Your task to perform on an android device: toggle translation in the chrome app Image 0: 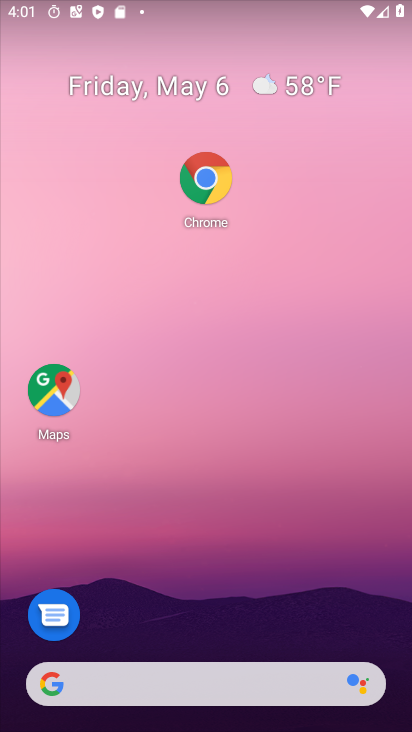
Step 0: drag from (397, 529) to (259, 46)
Your task to perform on an android device: toggle translation in the chrome app Image 1: 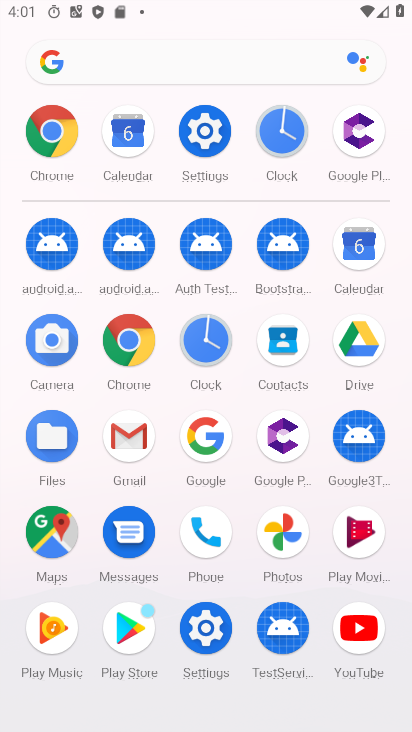
Step 1: click (54, 144)
Your task to perform on an android device: toggle translation in the chrome app Image 2: 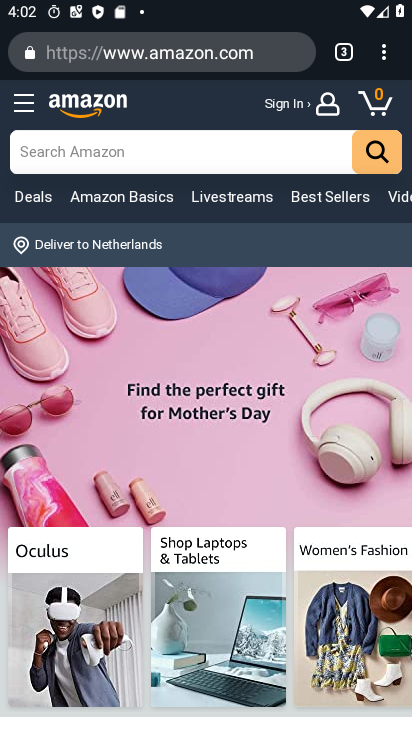
Step 2: drag from (386, 50) to (191, 630)
Your task to perform on an android device: toggle translation in the chrome app Image 3: 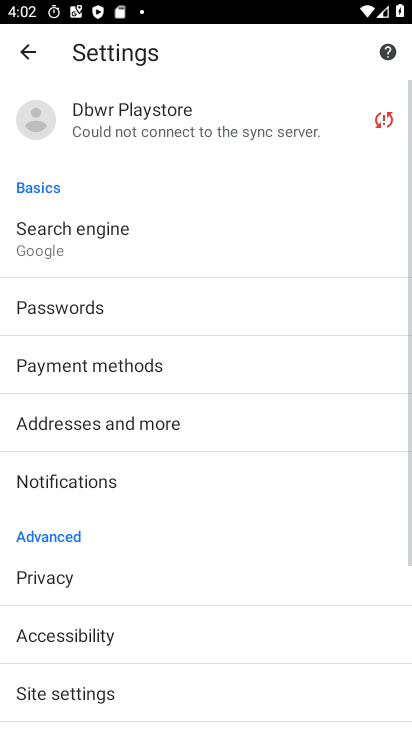
Step 3: drag from (112, 665) to (74, 254)
Your task to perform on an android device: toggle translation in the chrome app Image 4: 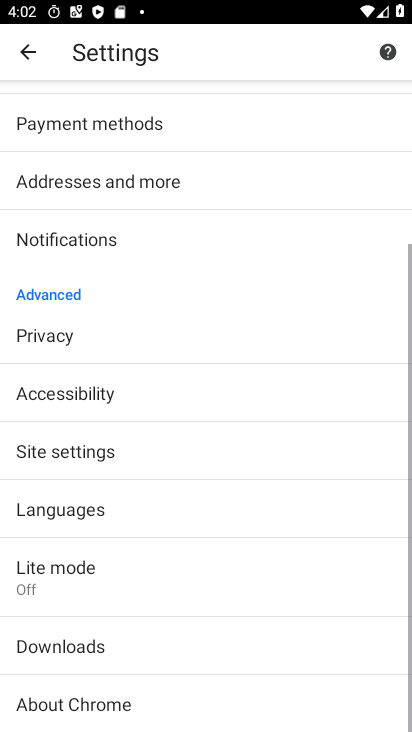
Step 4: drag from (110, 512) to (93, 101)
Your task to perform on an android device: toggle translation in the chrome app Image 5: 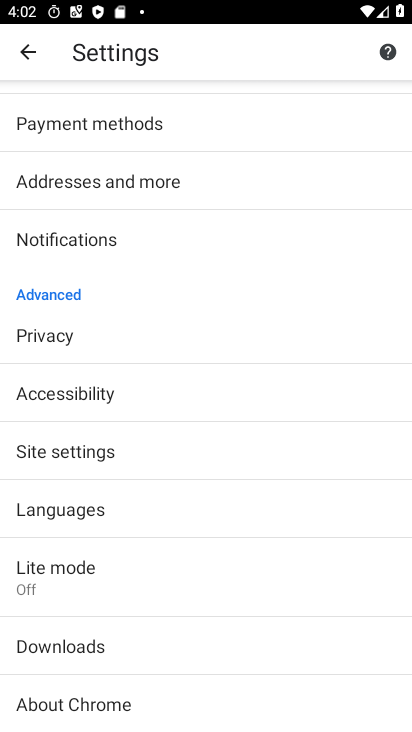
Step 5: click (50, 504)
Your task to perform on an android device: toggle translation in the chrome app Image 6: 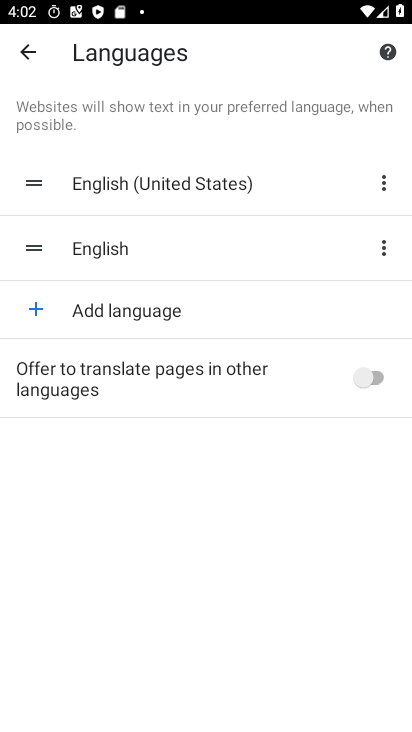
Step 6: click (369, 375)
Your task to perform on an android device: toggle translation in the chrome app Image 7: 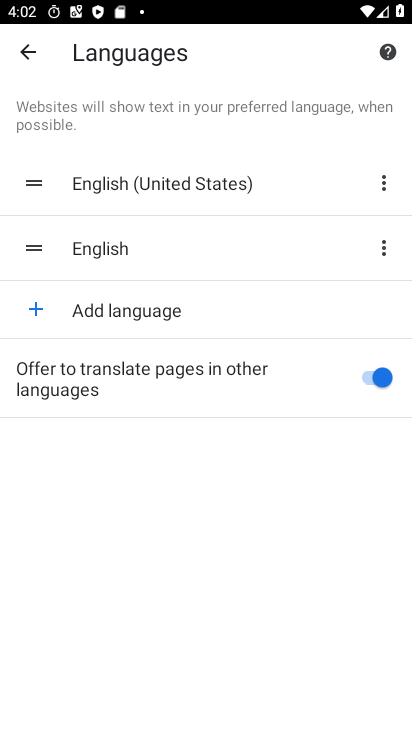
Step 7: task complete